Your task to perform on an android device: Go to Google maps Image 0: 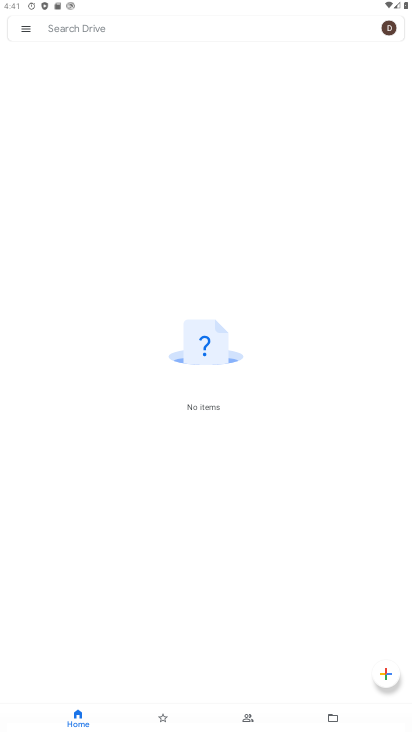
Step 0: press home button
Your task to perform on an android device: Go to Google maps Image 1: 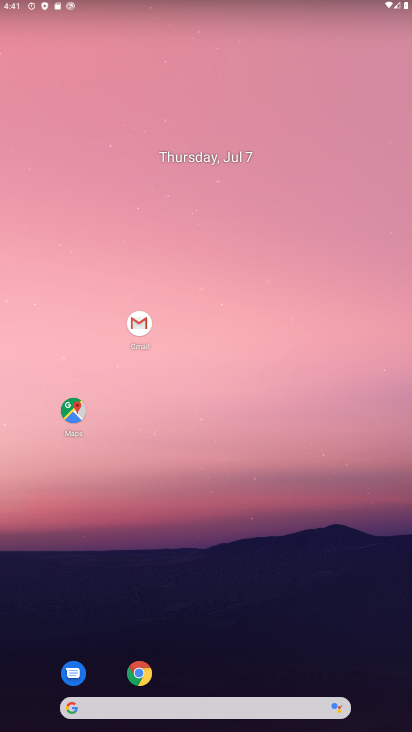
Step 1: click (65, 421)
Your task to perform on an android device: Go to Google maps Image 2: 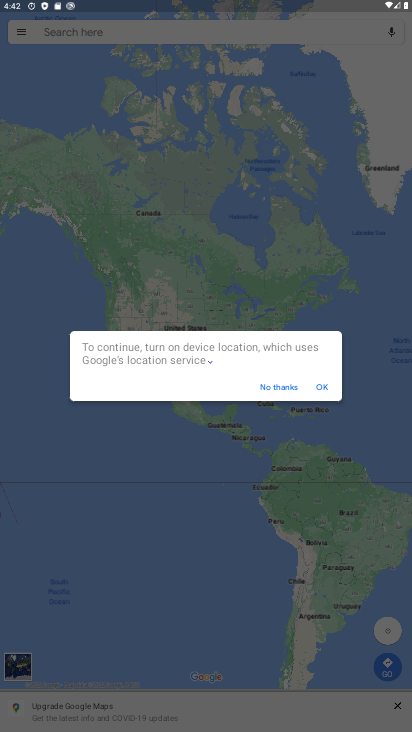
Step 2: task complete